Your task to perform on an android device: check android version Image 0: 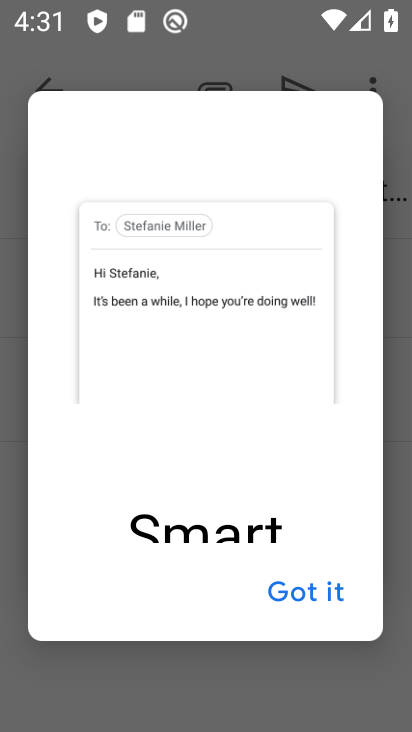
Step 0: press home button
Your task to perform on an android device: check android version Image 1: 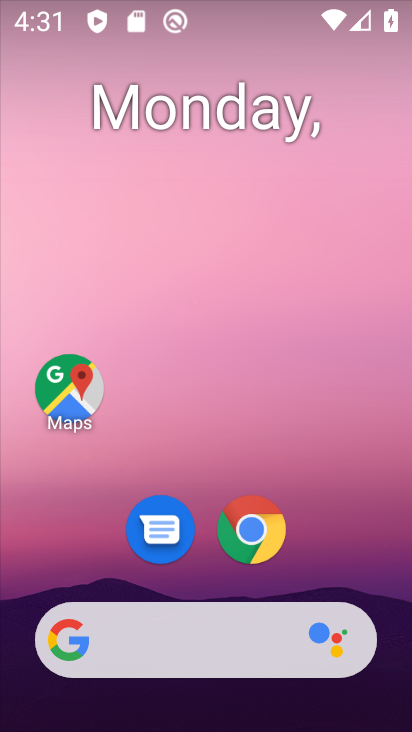
Step 1: drag from (310, 575) to (315, 1)
Your task to perform on an android device: check android version Image 2: 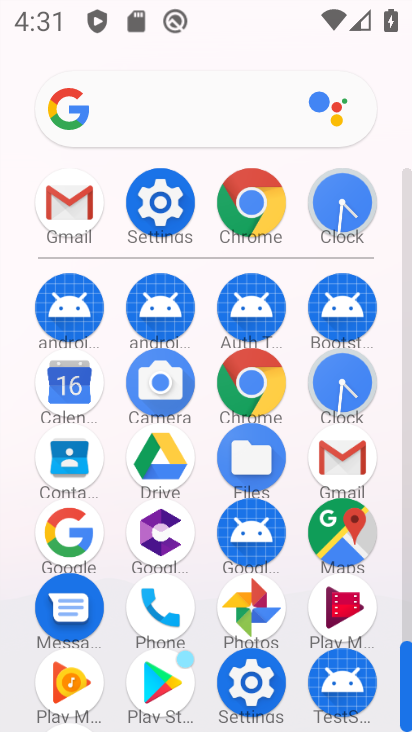
Step 2: click (157, 196)
Your task to perform on an android device: check android version Image 3: 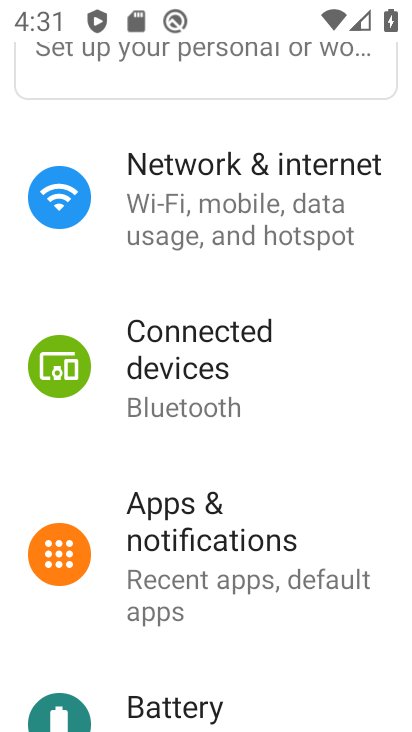
Step 3: drag from (194, 582) to (302, 9)
Your task to perform on an android device: check android version Image 4: 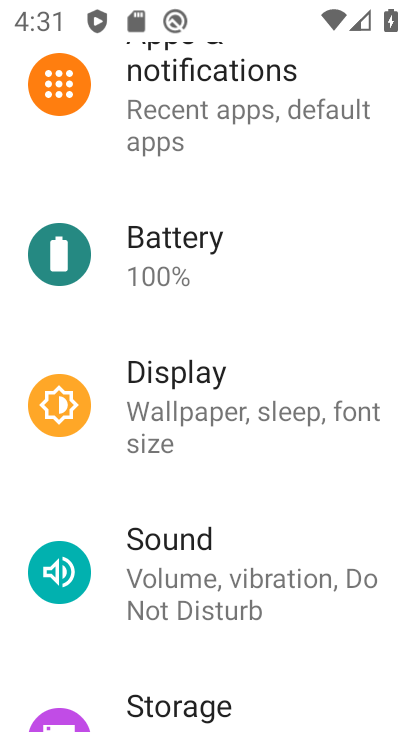
Step 4: drag from (195, 684) to (292, 173)
Your task to perform on an android device: check android version Image 5: 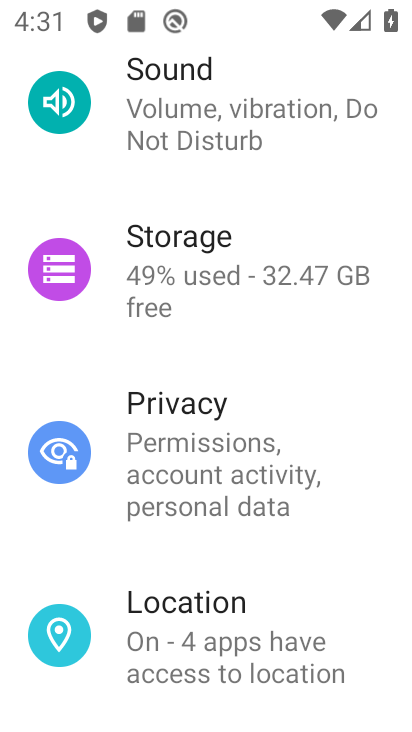
Step 5: drag from (198, 703) to (338, 0)
Your task to perform on an android device: check android version Image 6: 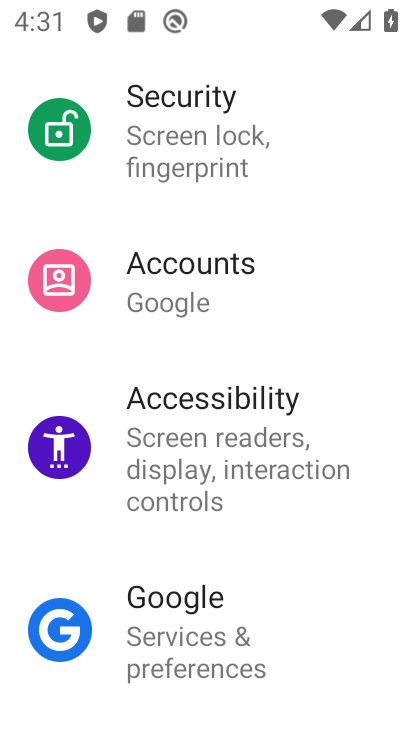
Step 6: drag from (199, 595) to (260, 199)
Your task to perform on an android device: check android version Image 7: 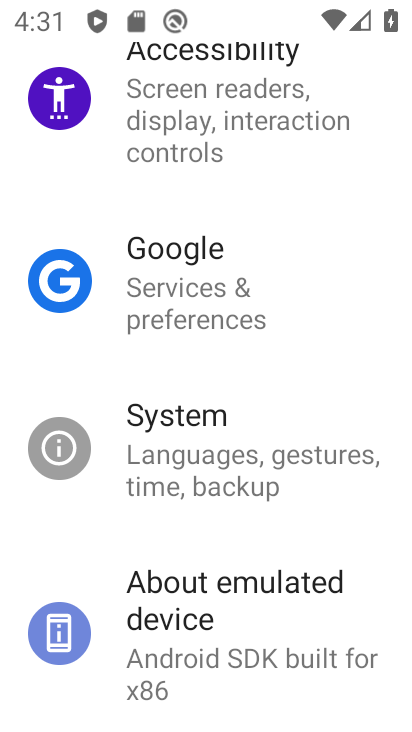
Step 7: drag from (256, 646) to (335, 86)
Your task to perform on an android device: check android version Image 8: 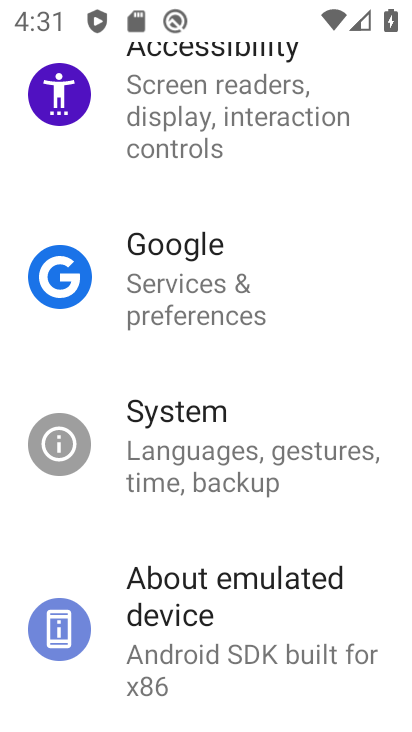
Step 8: click (201, 588)
Your task to perform on an android device: check android version Image 9: 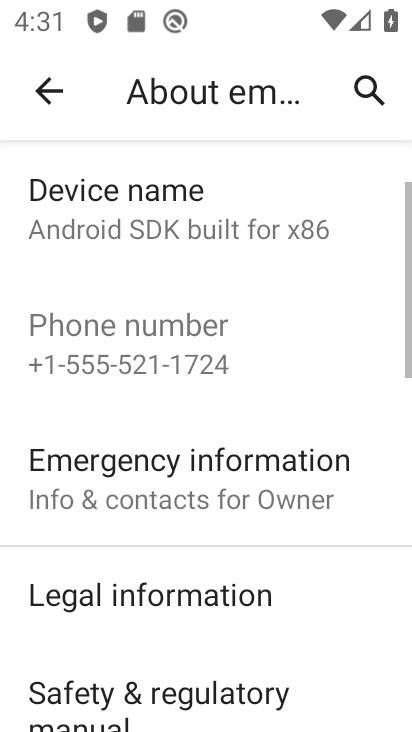
Step 9: drag from (172, 578) to (258, 271)
Your task to perform on an android device: check android version Image 10: 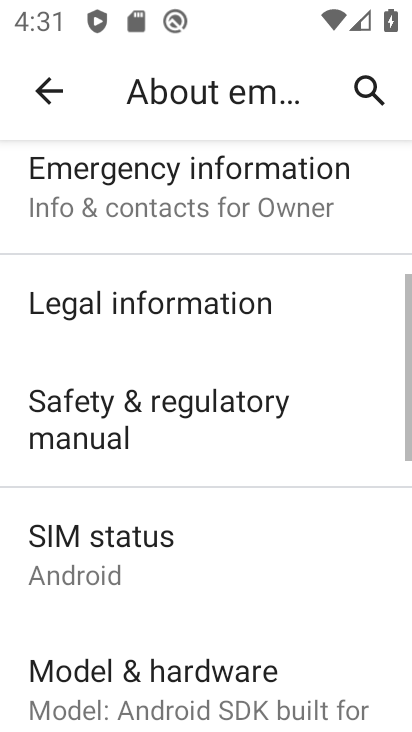
Step 10: drag from (147, 595) to (269, 108)
Your task to perform on an android device: check android version Image 11: 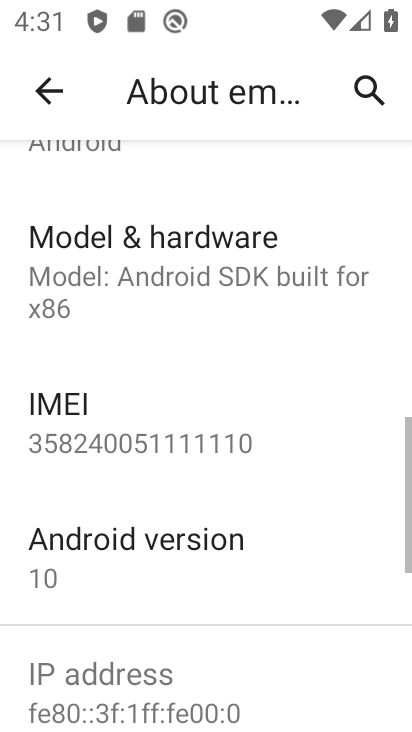
Step 11: click (179, 556)
Your task to perform on an android device: check android version Image 12: 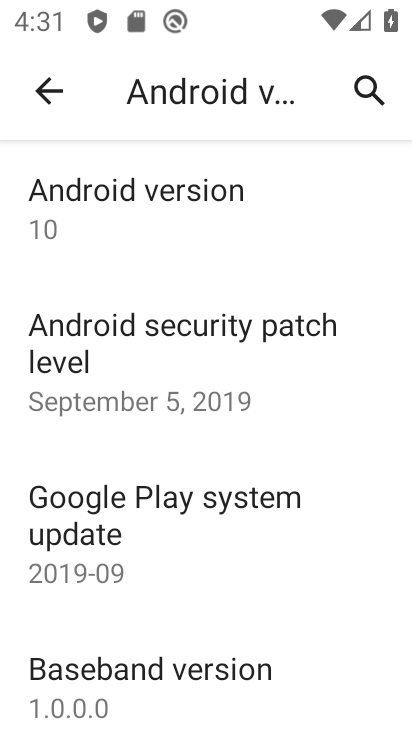
Step 12: task complete